Your task to perform on an android device: Empty the shopping cart on bestbuy. Search for logitech g933 on bestbuy, select the first entry, add it to the cart, then select checkout. Image 0: 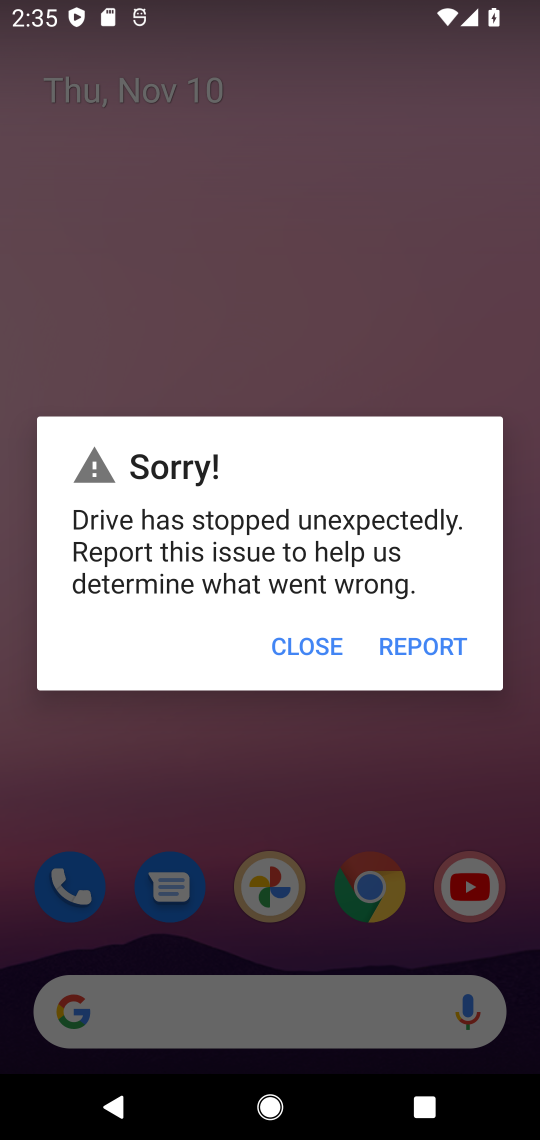
Step 0: press home button
Your task to perform on an android device: Empty the shopping cart on bestbuy. Search for logitech g933 on bestbuy, select the first entry, add it to the cart, then select checkout. Image 1: 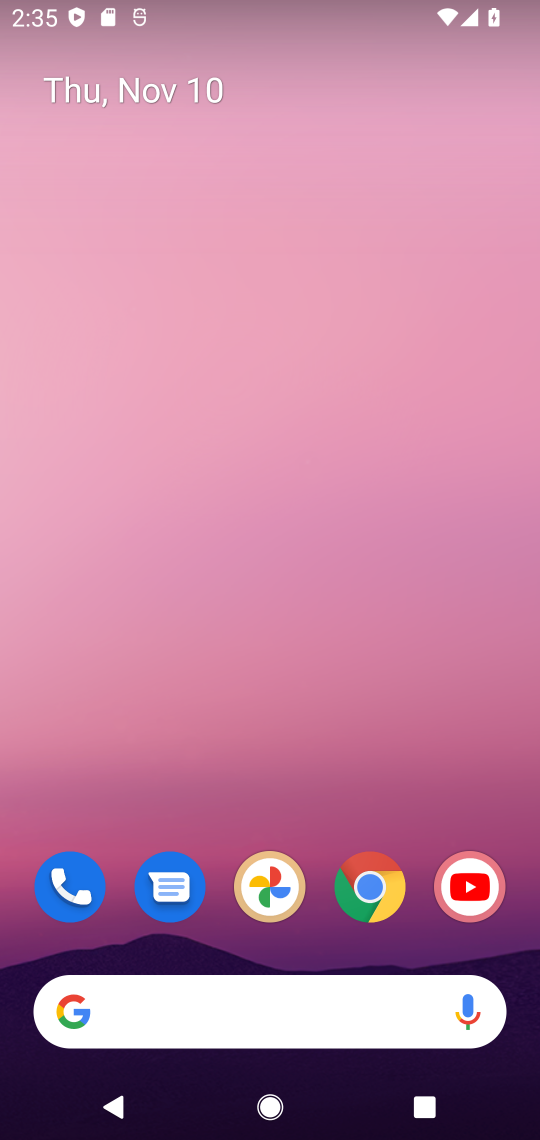
Step 1: drag from (313, 951) to (334, 31)
Your task to perform on an android device: Empty the shopping cart on bestbuy. Search for logitech g933 on bestbuy, select the first entry, add it to the cart, then select checkout. Image 2: 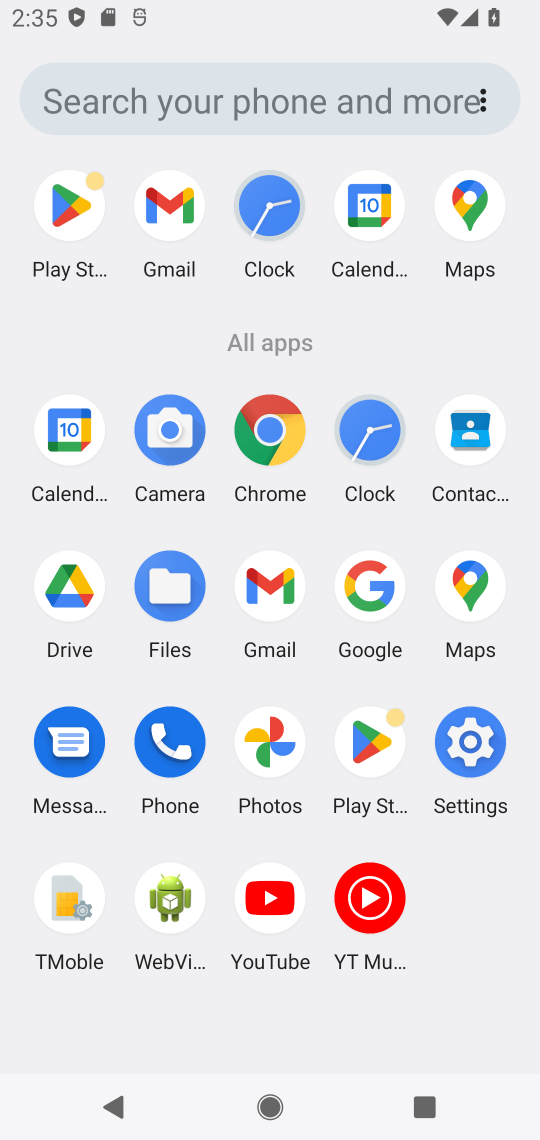
Step 2: click (272, 429)
Your task to perform on an android device: Empty the shopping cart on bestbuy. Search for logitech g933 on bestbuy, select the first entry, add it to the cart, then select checkout. Image 3: 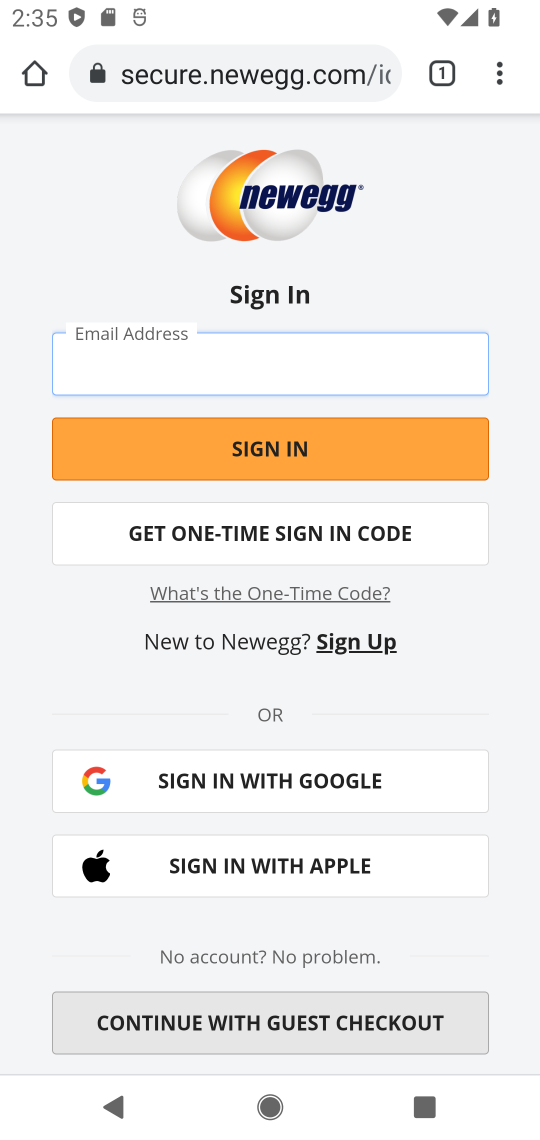
Step 3: click (274, 77)
Your task to perform on an android device: Empty the shopping cart on bestbuy. Search for logitech g933 on bestbuy, select the first entry, add it to the cart, then select checkout. Image 4: 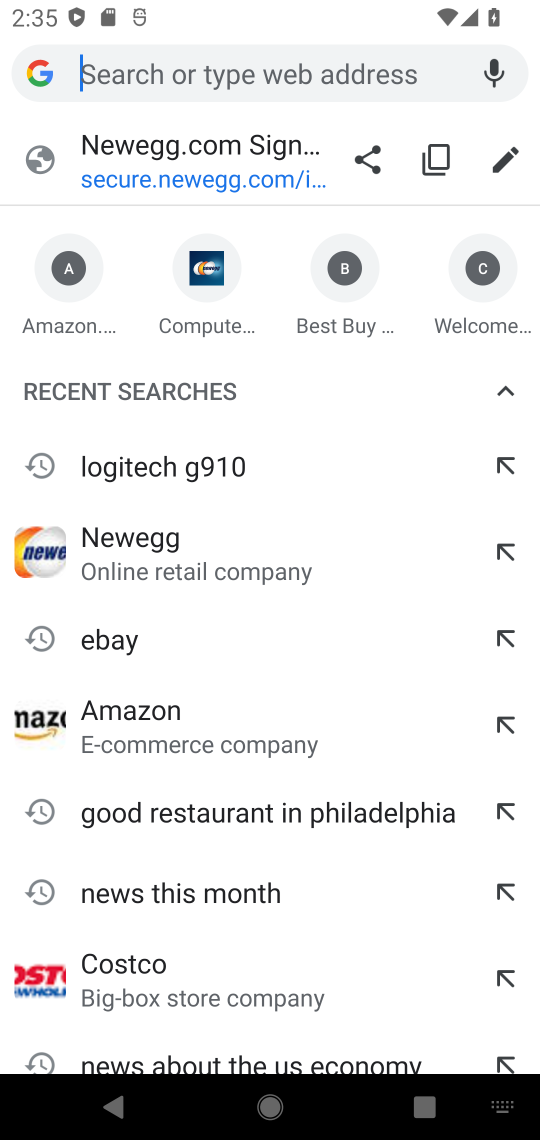
Step 4: type "bestbuy.com"
Your task to perform on an android device: Empty the shopping cart on bestbuy. Search for logitech g933 on bestbuy, select the first entry, add it to the cart, then select checkout. Image 5: 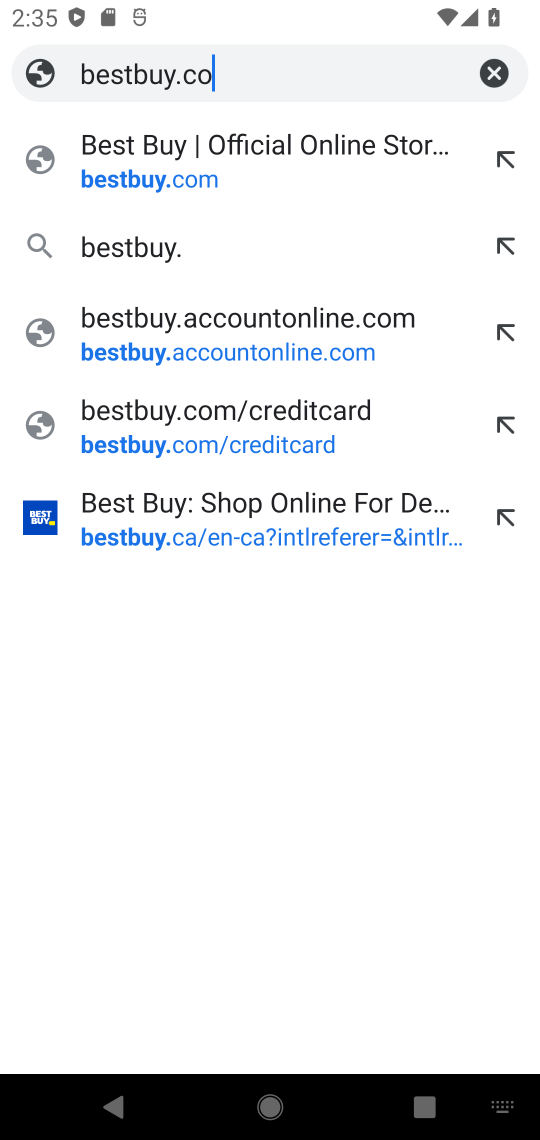
Step 5: press enter
Your task to perform on an android device: Empty the shopping cart on bestbuy. Search for logitech g933 on bestbuy, select the first entry, add it to the cart, then select checkout. Image 6: 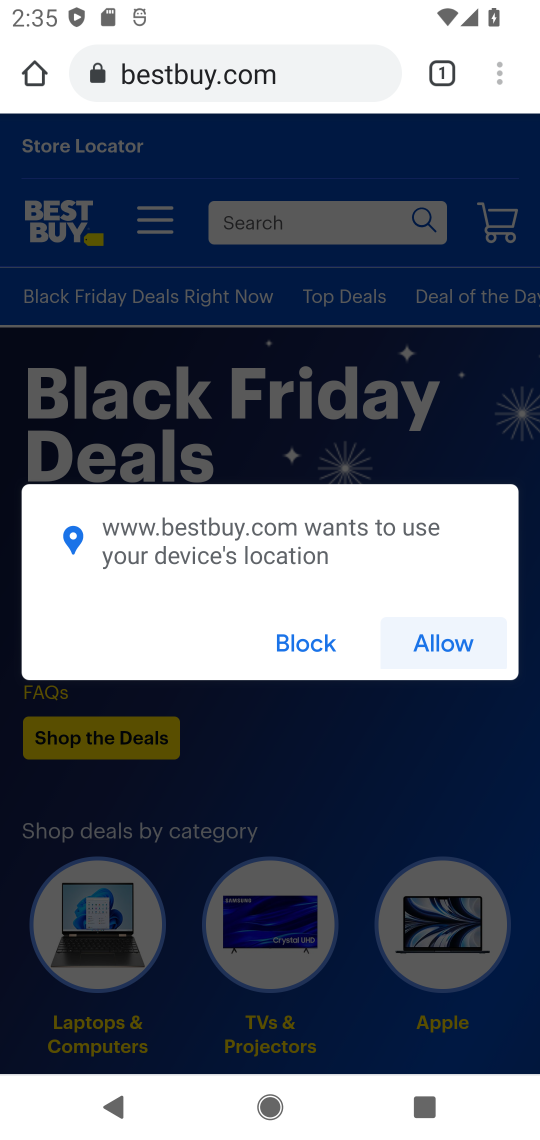
Step 6: click (309, 641)
Your task to perform on an android device: Empty the shopping cart on bestbuy. Search for logitech g933 on bestbuy, select the first entry, add it to the cart, then select checkout. Image 7: 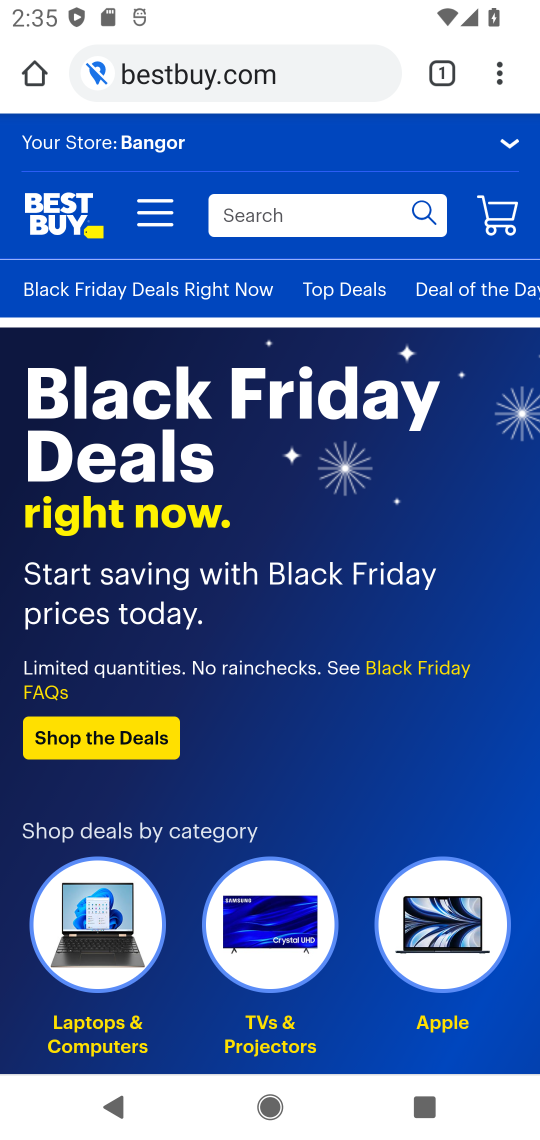
Step 7: click (511, 203)
Your task to perform on an android device: Empty the shopping cart on bestbuy. Search for logitech g933 on bestbuy, select the first entry, add it to the cart, then select checkout. Image 8: 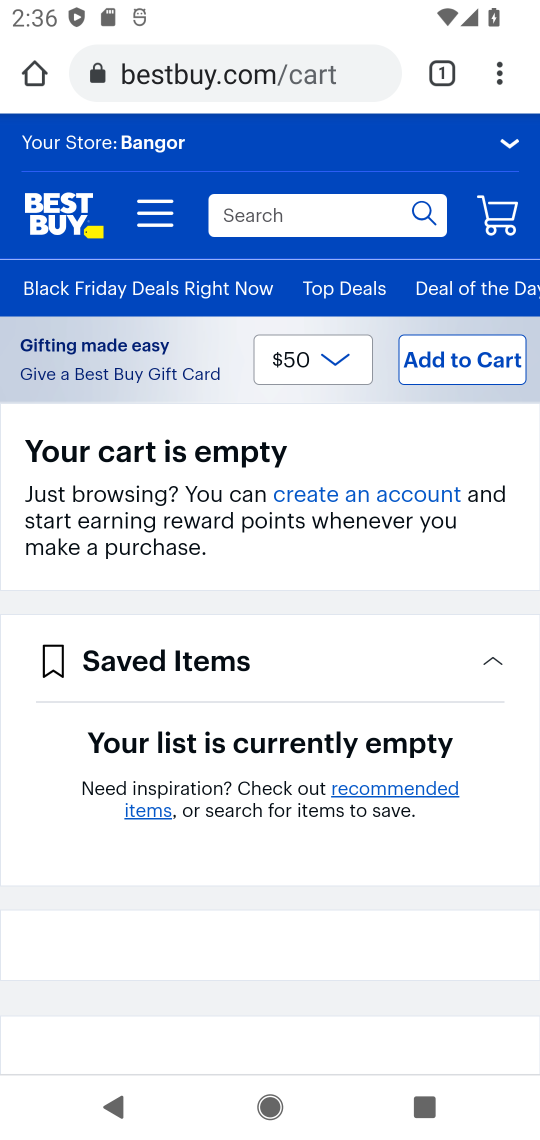
Step 8: click (247, 220)
Your task to perform on an android device: Empty the shopping cart on bestbuy. Search for logitech g933 on bestbuy, select the first entry, add it to the cart, then select checkout. Image 9: 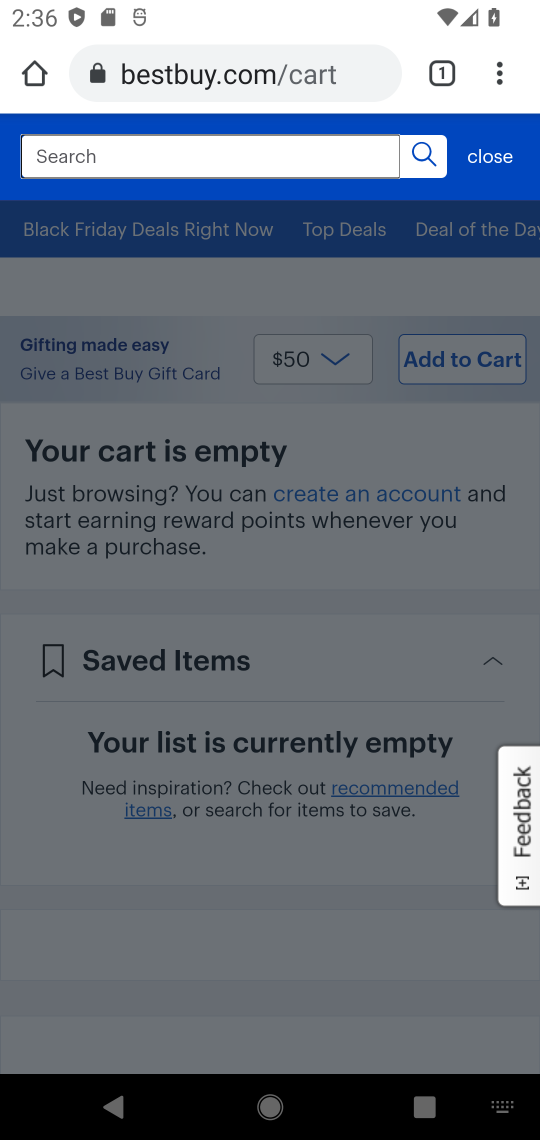
Step 9: type "logitech g933"
Your task to perform on an android device: Empty the shopping cart on bestbuy. Search for logitech g933 on bestbuy, select the first entry, add it to the cart, then select checkout. Image 10: 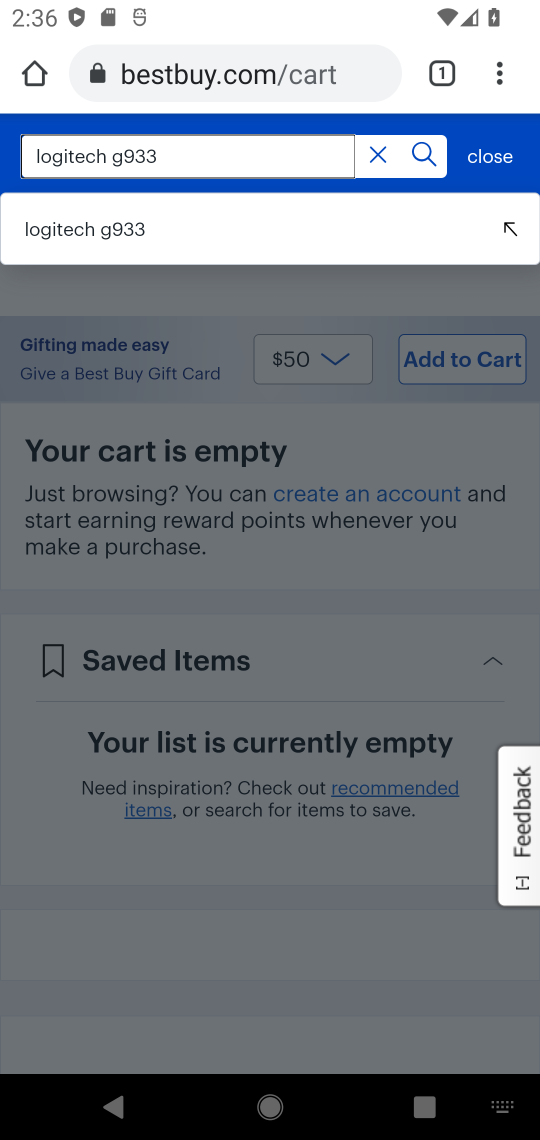
Step 10: press enter
Your task to perform on an android device: Empty the shopping cart on bestbuy. Search for logitech g933 on bestbuy, select the first entry, add it to the cart, then select checkout. Image 11: 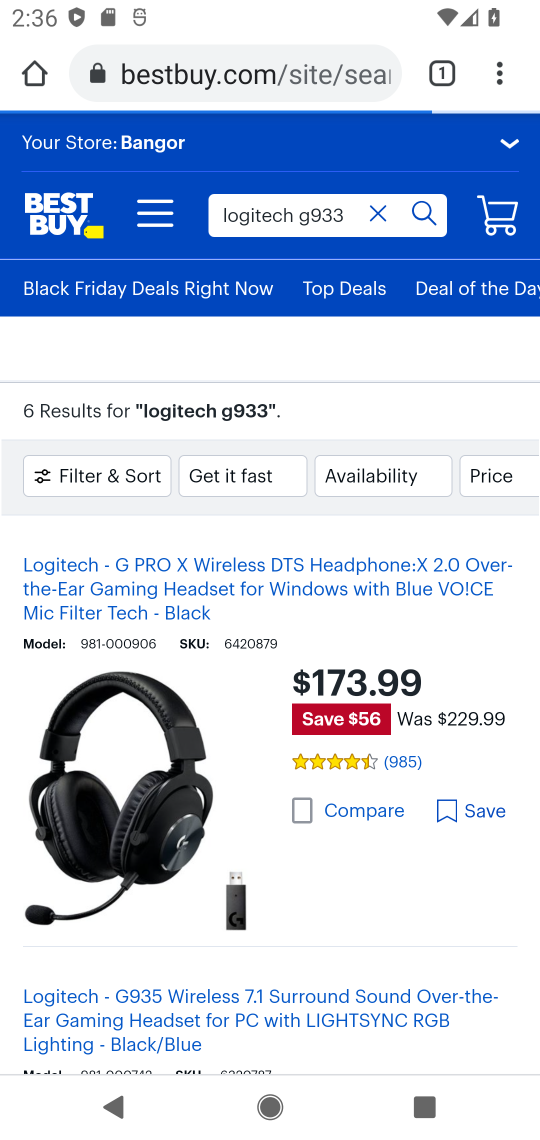
Step 11: task complete